Your task to perform on an android device: allow cookies in the chrome app Image 0: 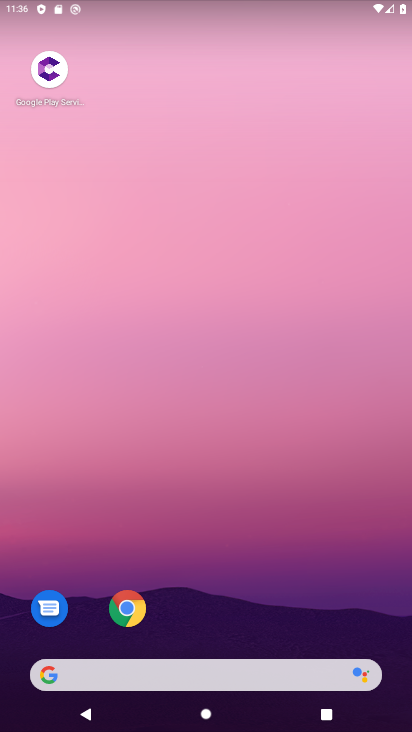
Step 0: drag from (279, 462) to (233, 13)
Your task to perform on an android device: allow cookies in the chrome app Image 1: 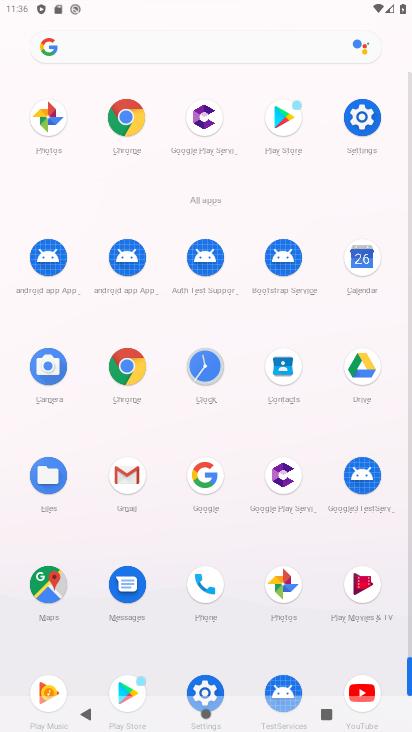
Step 1: drag from (24, 519) to (34, 202)
Your task to perform on an android device: allow cookies in the chrome app Image 2: 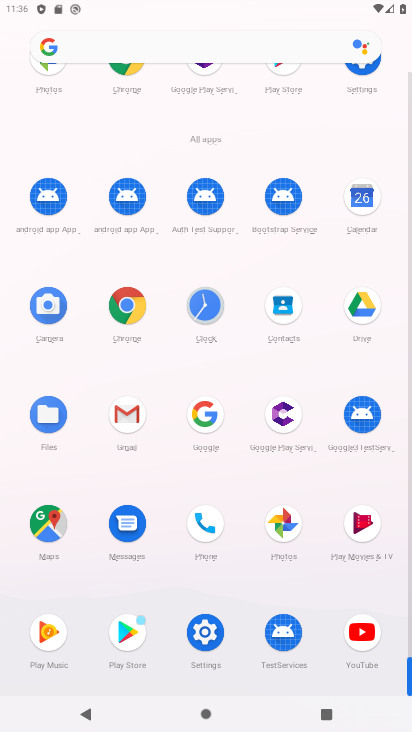
Step 2: click (126, 303)
Your task to perform on an android device: allow cookies in the chrome app Image 3: 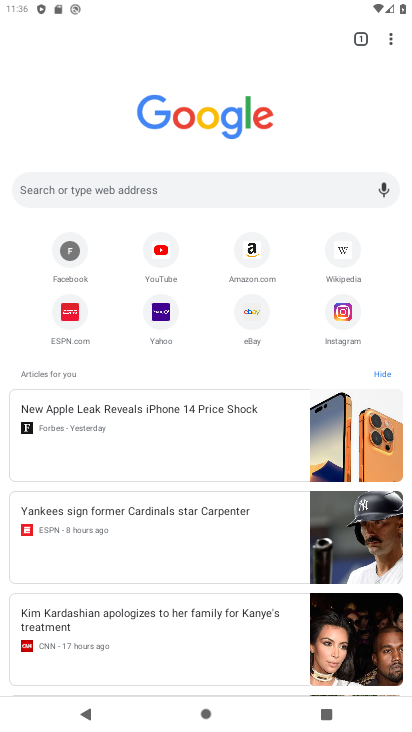
Step 3: drag from (387, 36) to (236, 324)
Your task to perform on an android device: allow cookies in the chrome app Image 4: 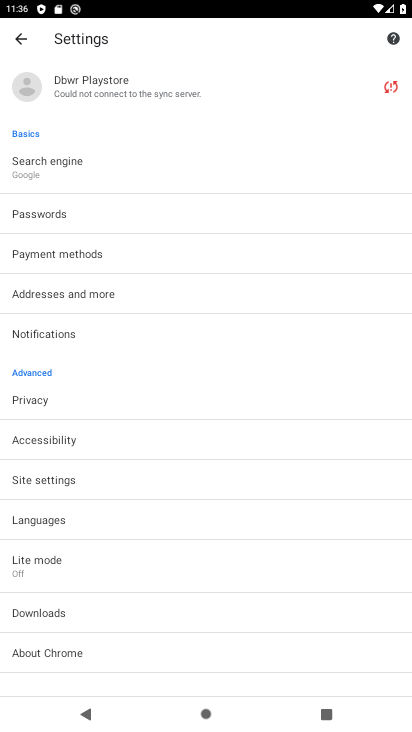
Step 4: click (77, 484)
Your task to perform on an android device: allow cookies in the chrome app Image 5: 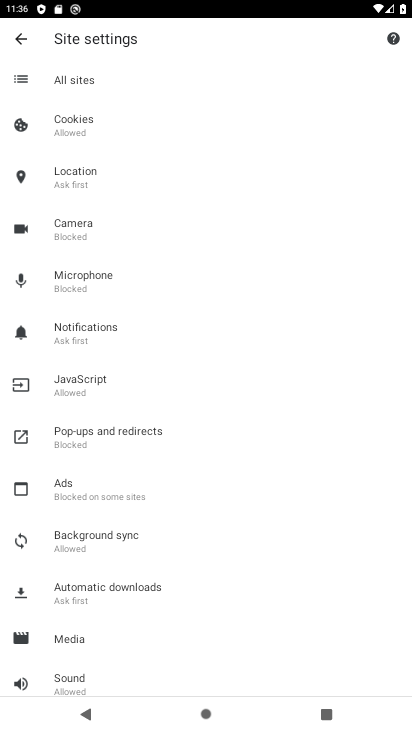
Step 5: click (27, 37)
Your task to perform on an android device: allow cookies in the chrome app Image 6: 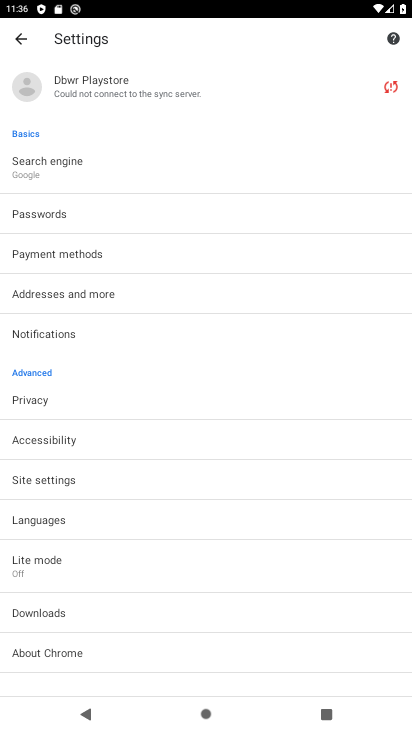
Step 6: click (73, 399)
Your task to perform on an android device: allow cookies in the chrome app Image 7: 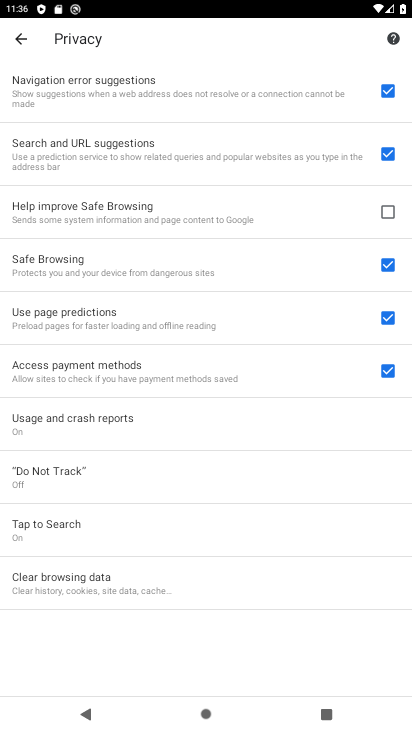
Step 7: drag from (252, 525) to (229, 172)
Your task to perform on an android device: allow cookies in the chrome app Image 8: 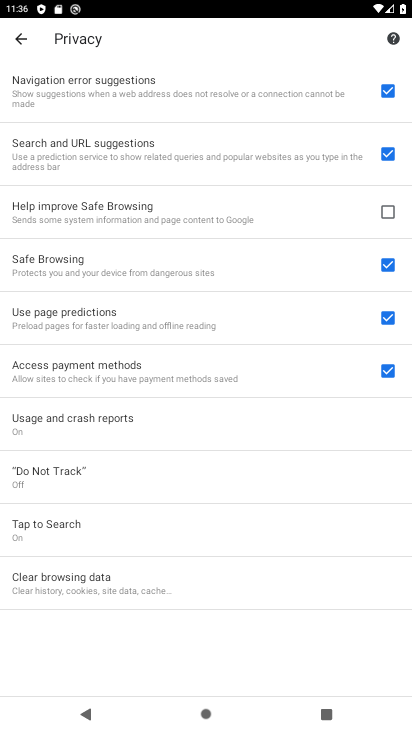
Step 8: click (86, 568)
Your task to perform on an android device: allow cookies in the chrome app Image 9: 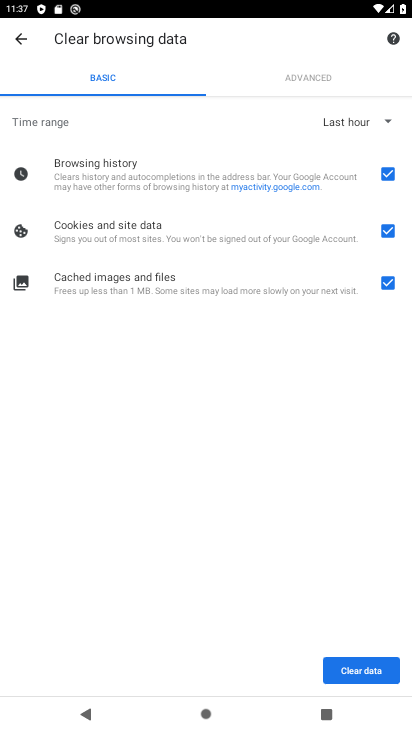
Step 9: click (387, 178)
Your task to perform on an android device: allow cookies in the chrome app Image 10: 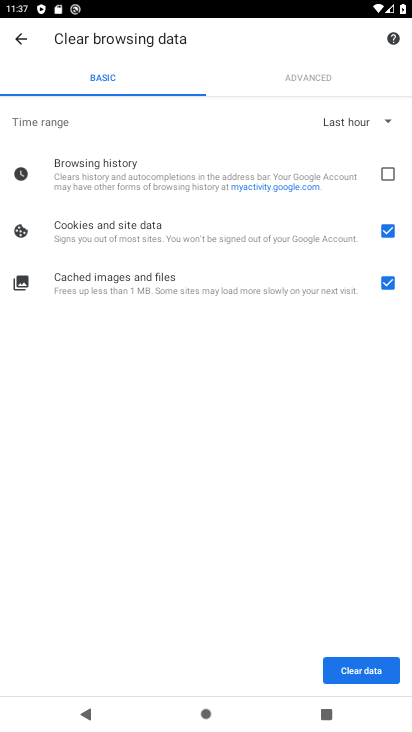
Step 10: click (387, 280)
Your task to perform on an android device: allow cookies in the chrome app Image 11: 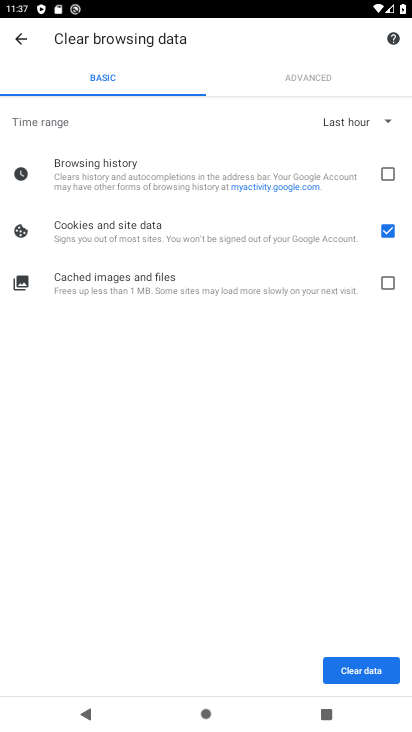
Step 11: click (352, 665)
Your task to perform on an android device: allow cookies in the chrome app Image 12: 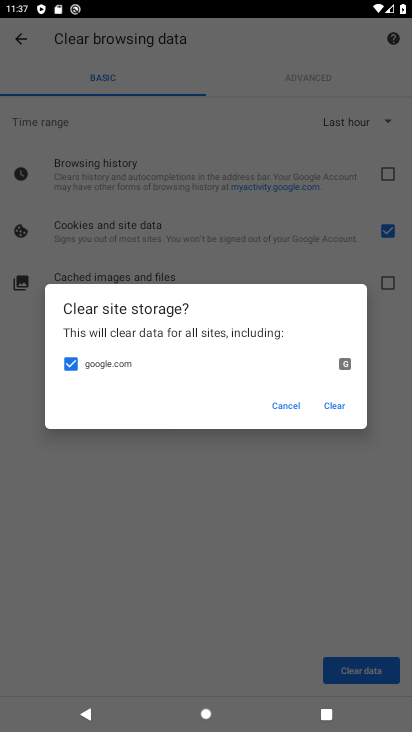
Step 12: click (328, 404)
Your task to perform on an android device: allow cookies in the chrome app Image 13: 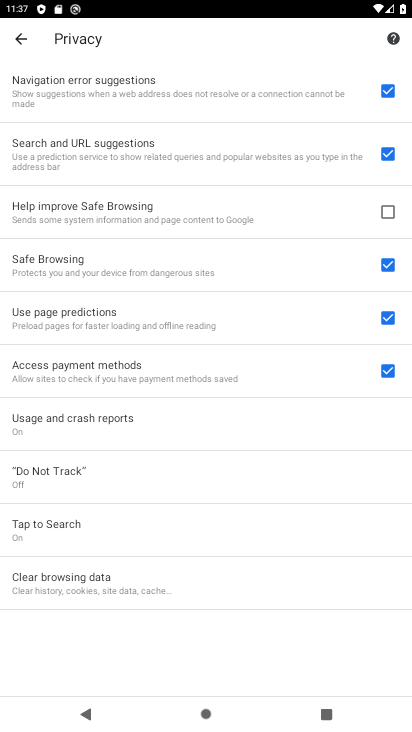
Step 13: task complete